Your task to perform on an android device: delete a single message in the gmail app Image 0: 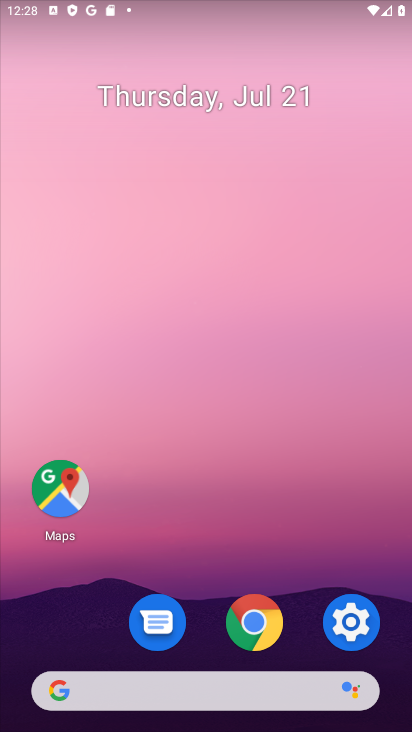
Step 0: drag from (235, 712) to (306, 244)
Your task to perform on an android device: delete a single message in the gmail app Image 1: 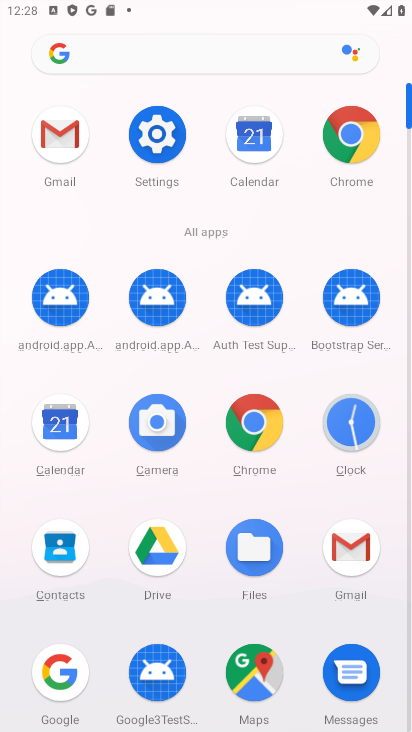
Step 1: click (65, 149)
Your task to perform on an android device: delete a single message in the gmail app Image 2: 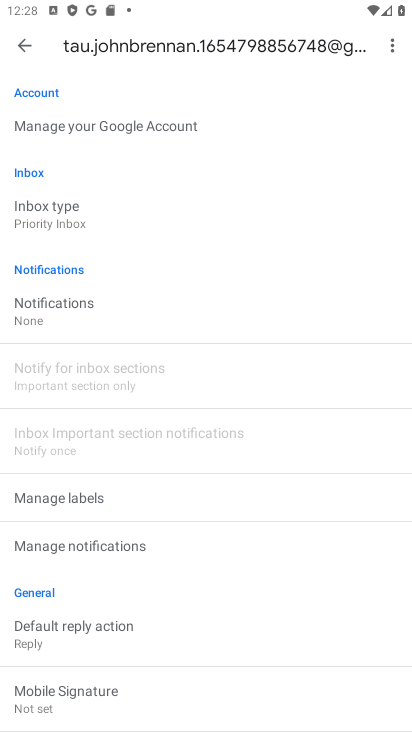
Step 2: click (23, 39)
Your task to perform on an android device: delete a single message in the gmail app Image 3: 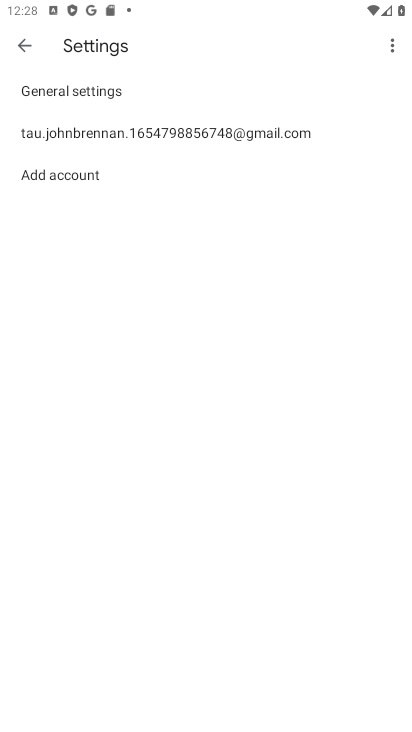
Step 3: click (22, 39)
Your task to perform on an android device: delete a single message in the gmail app Image 4: 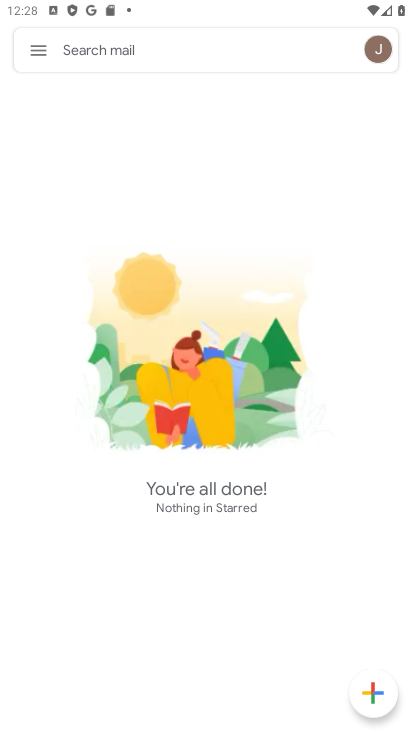
Step 4: click (34, 55)
Your task to perform on an android device: delete a single message in the gmail app Image 5: 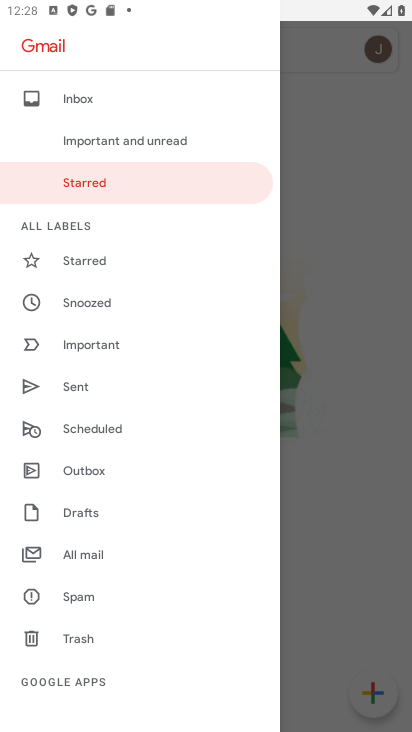
Step 5: click (86, 561)
Your task to perform on an android device: delete a single message in the gmail app Image 6: 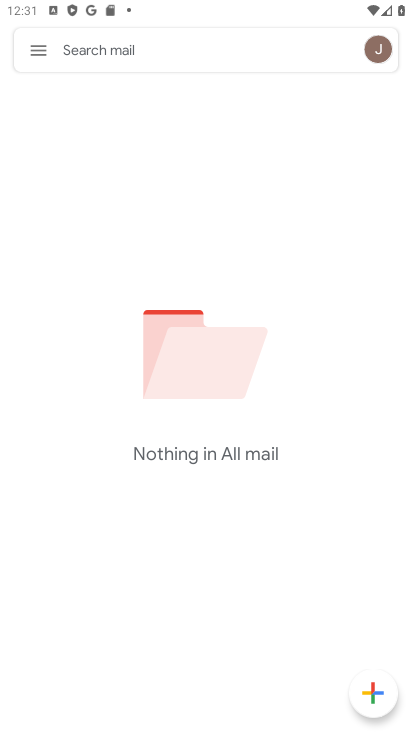
Step 6: task complete